Your task to perform on an android device: turn on improve location accuracy Image 0: 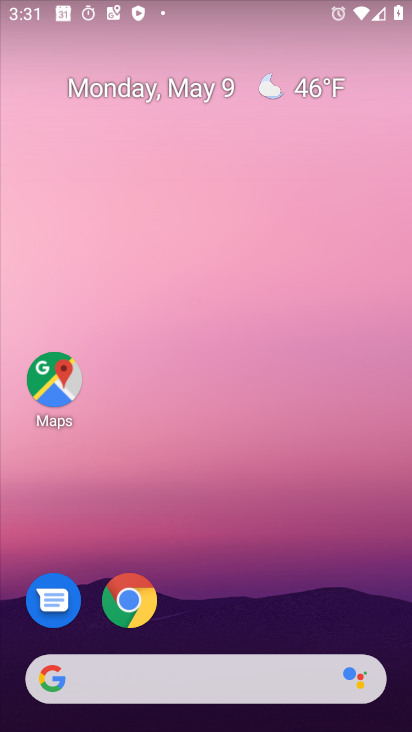
Step 0: drag from (207, 567) to (288, 81)
Your task to perform on an android device: turn on improve location accuracy Image 1: 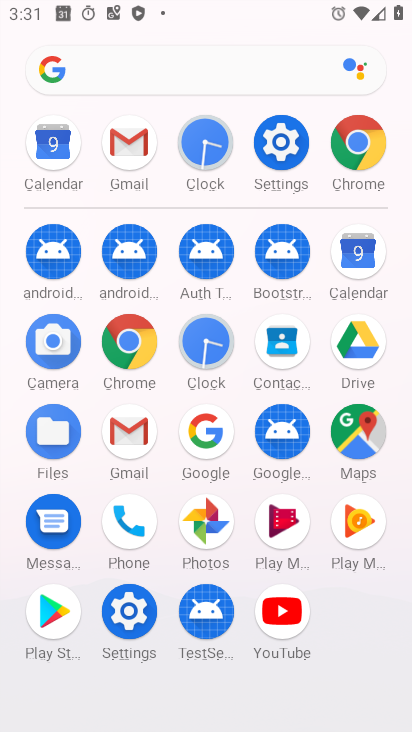
Step 1: click (291, 141)
Your task to perform on an android device: turn on improve location accuracy Image 2: 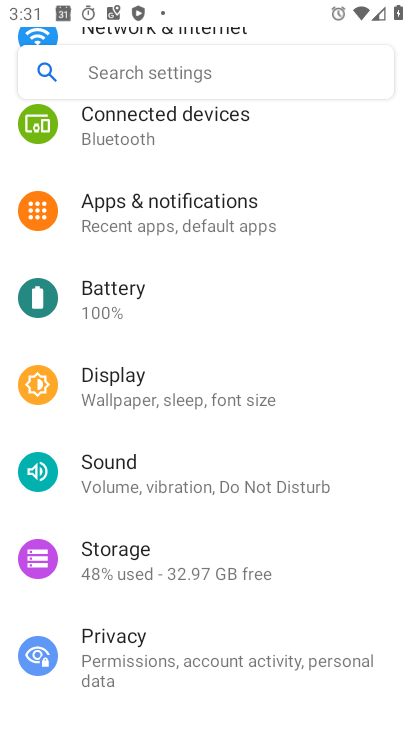
Step 2: drag from (218, 227) to (230, 134)
Your task to perform on an android device: turn on improve location accuracy Image 3: 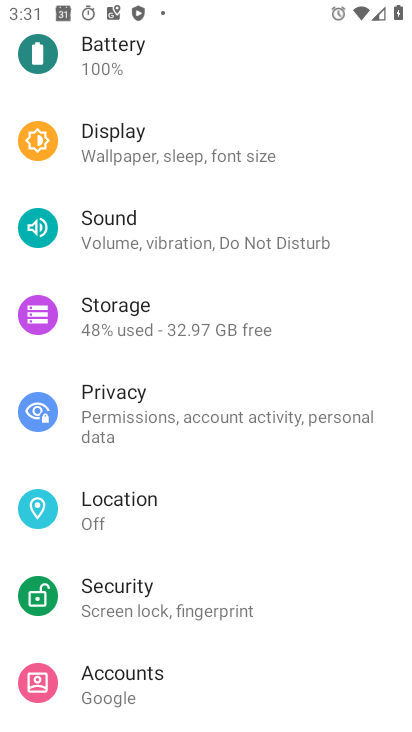
Step 3: click (122, 502)
Your task to perform on an android device: turn on improve location accuracy Image 4: 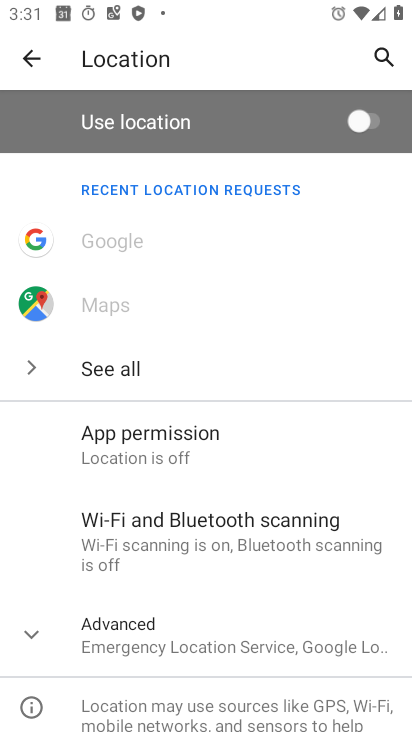
Step 4: drag from (151, 668) to (195, 530)
Your task to perform on an android device: turn on improve location accuracy Image 5: 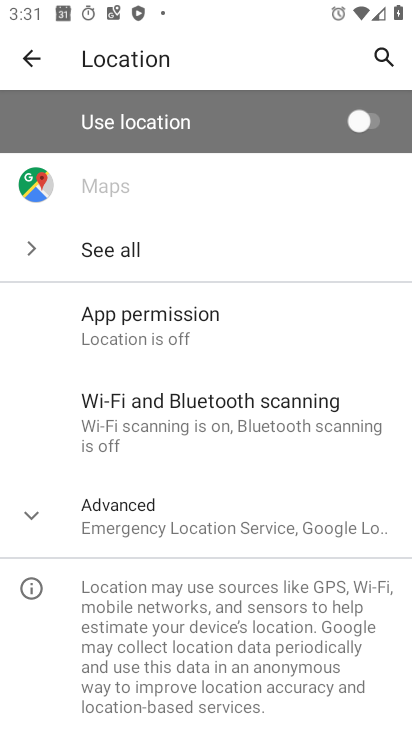
Step 5: click (185, 515)
Your task to perform on an android device: turn on improve location accuracy Image 6: 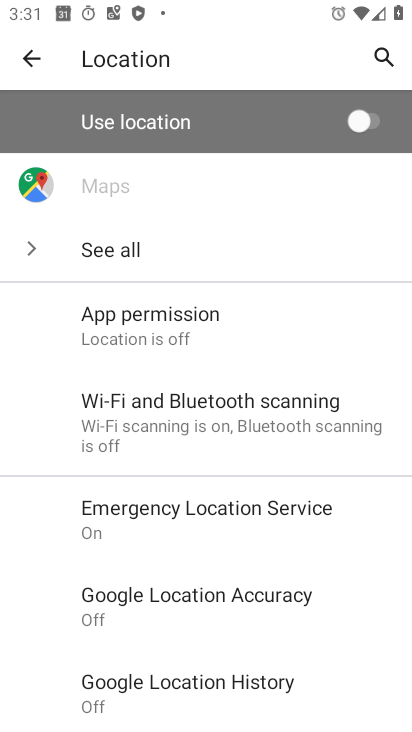
Step 6: click (166, 595)
Your task to perform on an android device: turn on improve location accuracy Image 7: 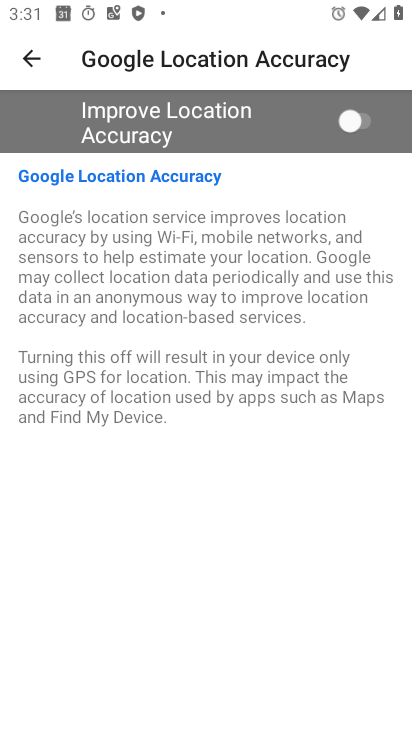
Step 7: click (351, 108)
Your task to perform on an android device: turn on improve location accuracy Image 8: 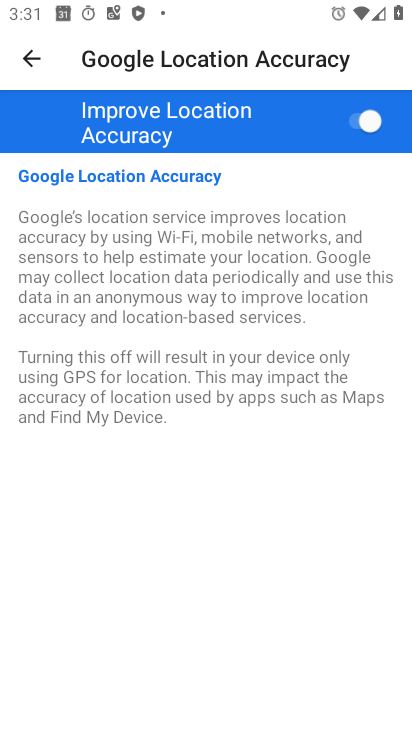
Step 8: task complete